Your task to perform on an android device: Open the web browser Image 0: 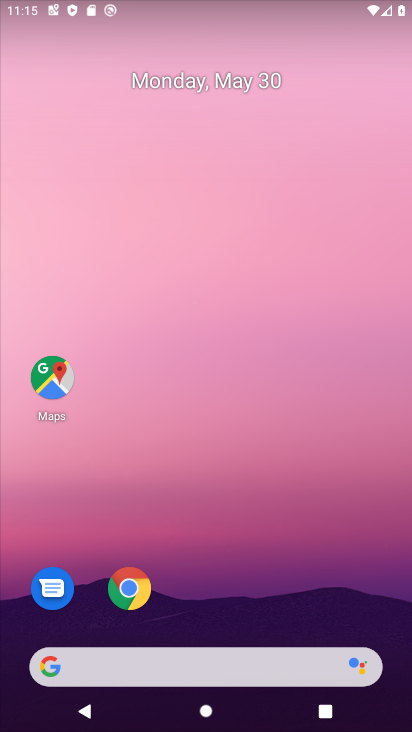
Step 0: click (127, 586)
Your task to perform on an android device: Open the web browser Image 1: 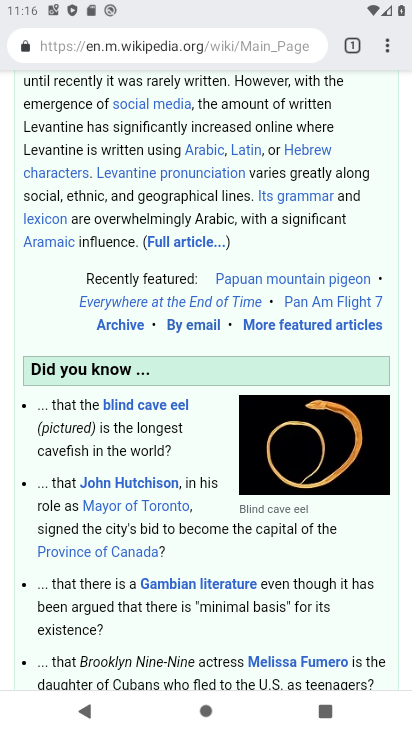
Step 1: click (345, 40)
Your task to perform on an android device: Open the web browser Image 2: 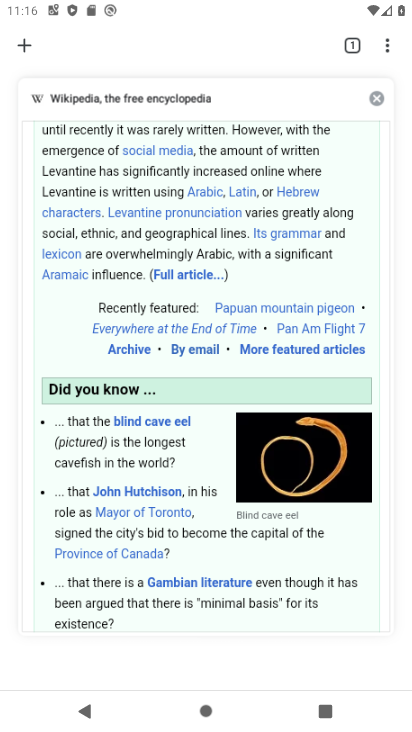
Step 2: click (369, 92)
Your task to perform on an android device: Open the web browser Image 3: 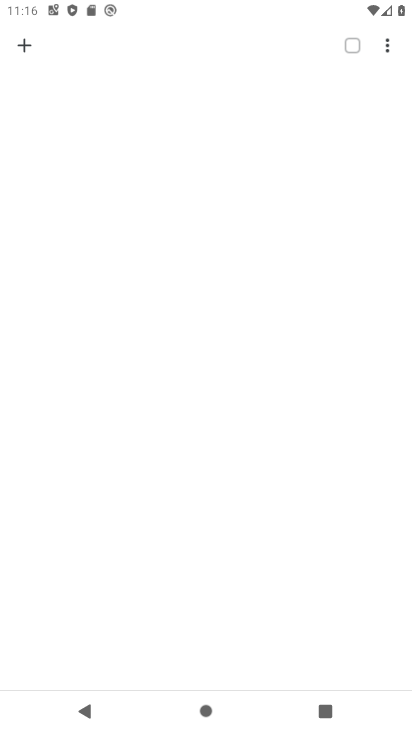
Step 3: click (21, 46)
Your task to perform on an android device: Open the web browser Image 4: 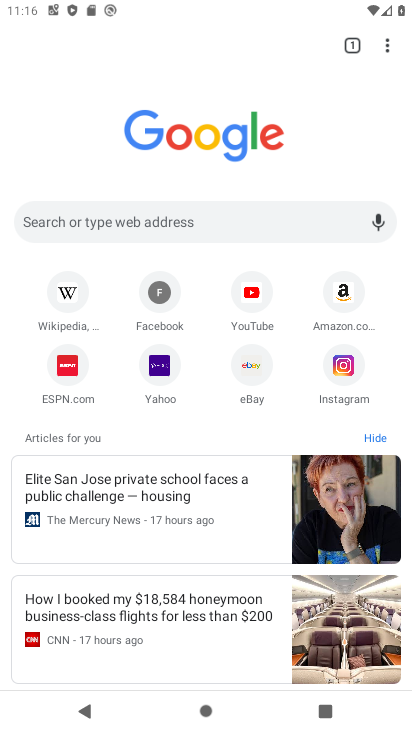
Step 4: task complete